Your task to perform on an android device: toggle location history Image 0: 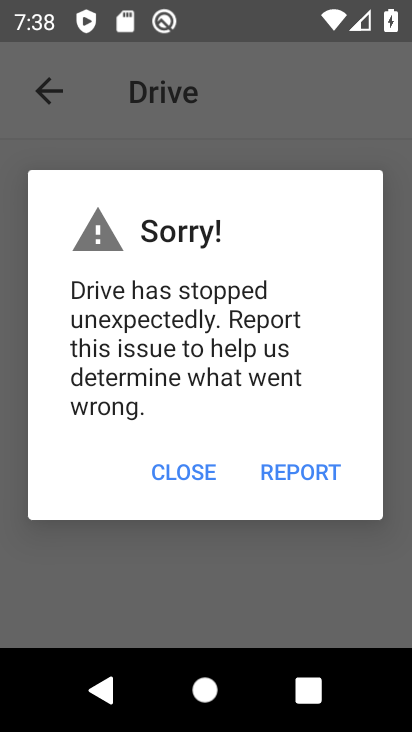
Step 0: press home button
Your task to perform on an android device: toggle location history Image 1: 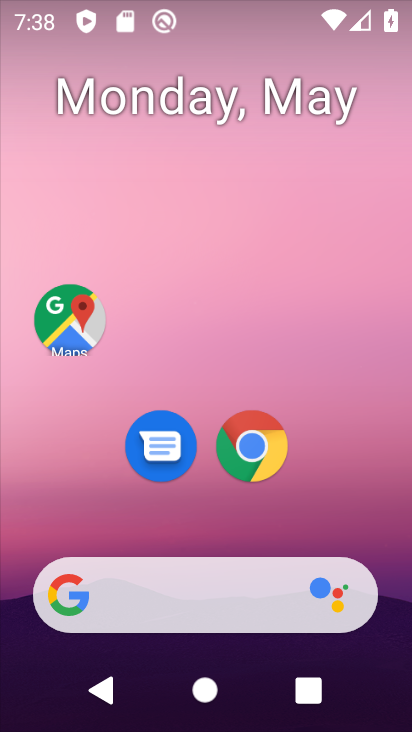
Step 1: click (63, 312)
Your task to perform on an android device: toggle location history Image 2: 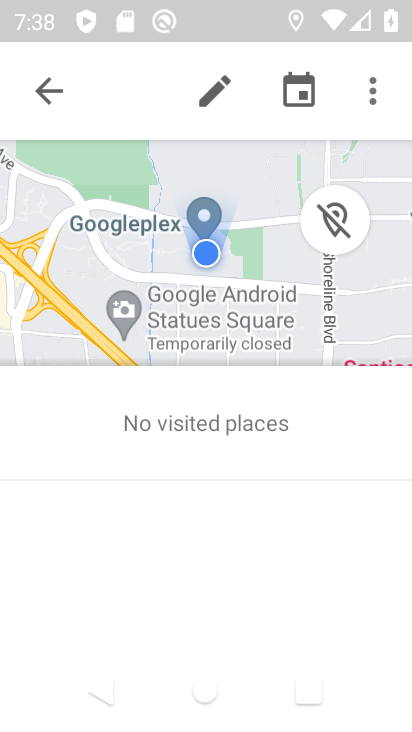
Step 2: click (370, 100)
Your task to perform on an android device: toggle location history Image 3: 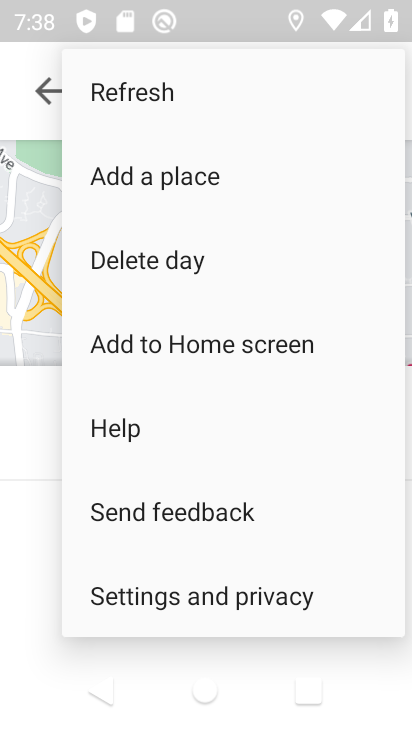
Step 3: click (162, 601)
Your task to perform on an android device: toggle location history Image 4: 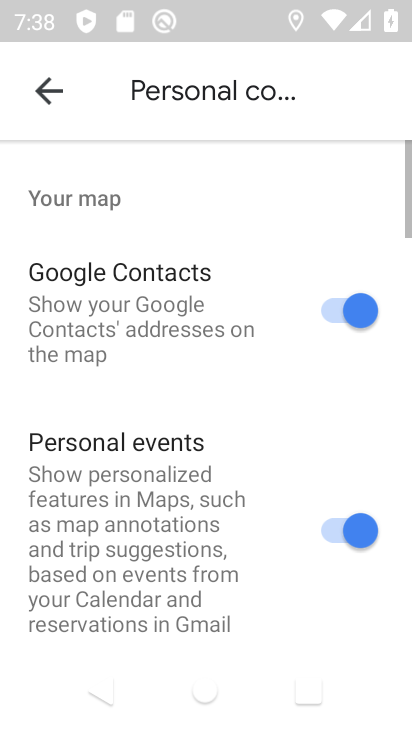
Step 4: drag from (162, 601) to (162, 97)
Your task to perform on an android device: toggle location history Image 5: 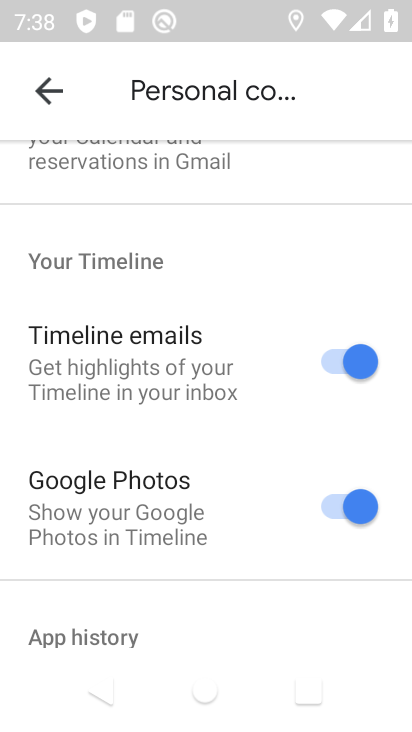
Step 5: drag from (133, 519) to (124, 118)
Your task to perform on an android device: toggle location history Image 6: 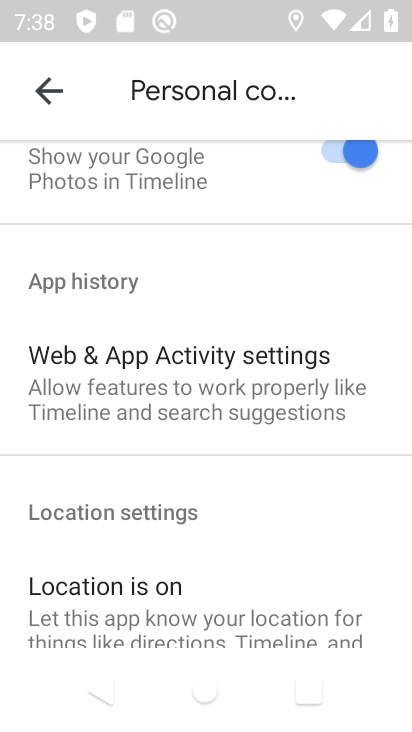
Step 6: drag from (138, 520) to (142, 91)
Your task to perform on an android device: toggle location history Image 7: 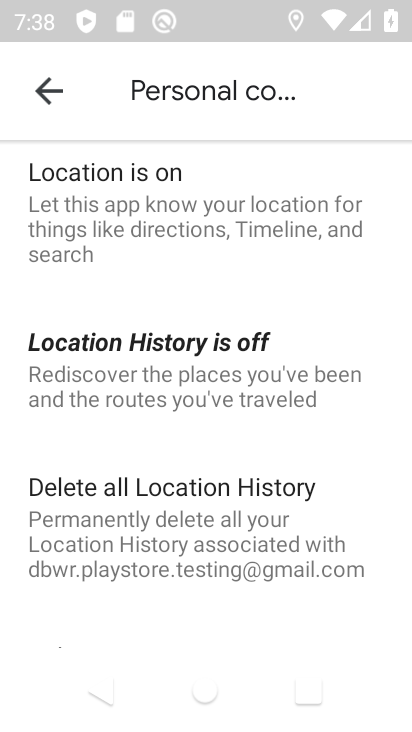
Step 7: click (148, 359)
Your task to perform on an android device: toggle location history Image 8: 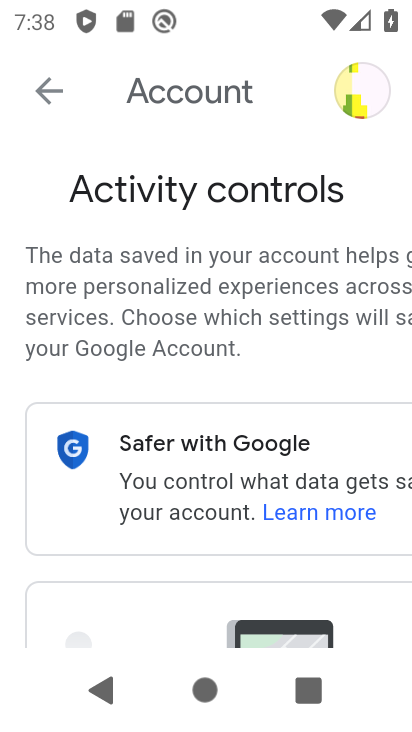
Step 8: drag from (191, 508) to (193, 119)
Your task to perform on an android device: toggle location history Image 9: 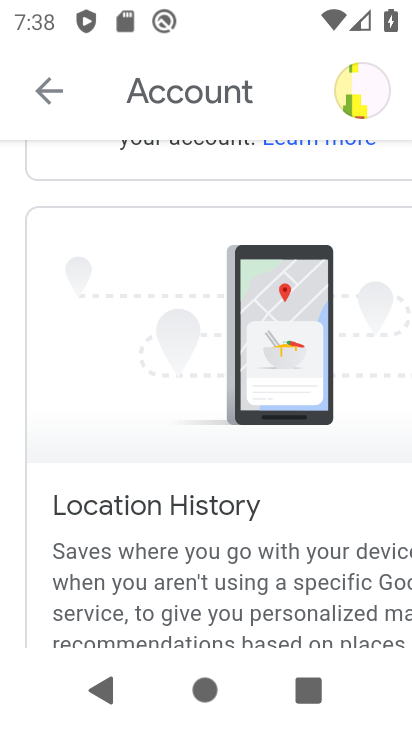
Step 9: drag from (166, 553) to (159, 147)
Your task to perform on an android device: toggle location history Image 10: 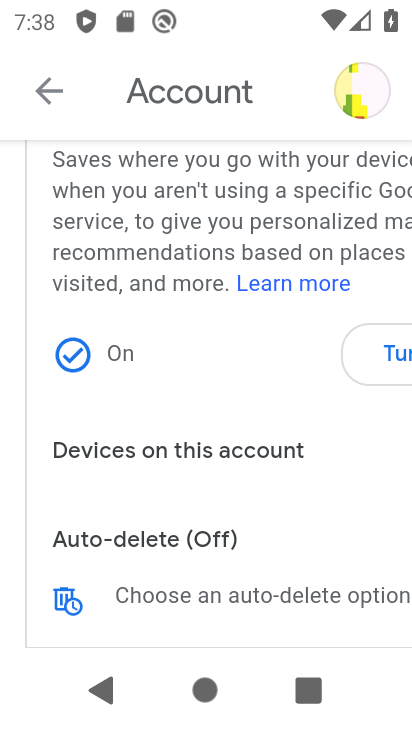
Step 10: click (400, 358)
Your task to perform on an android device: toggle location history Image 11: 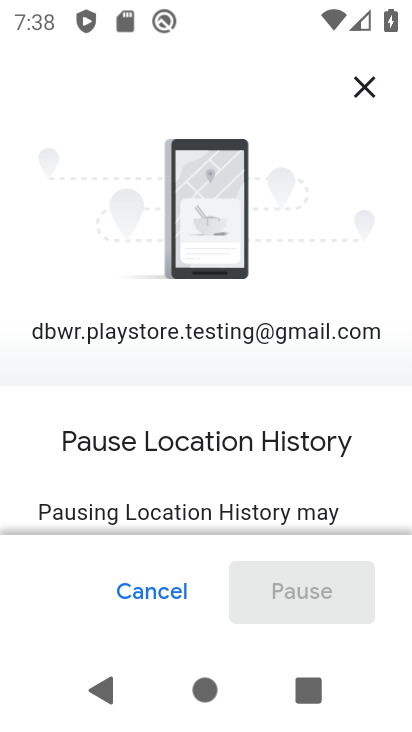
Step 11: drag from (188, 492) to (165, 40)
Your task to perform on an android device: toggle location history Image 12: 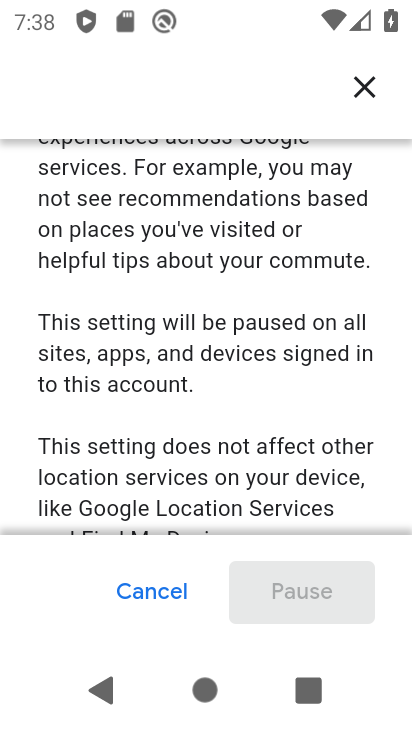
Step 12: drag from (196, 463) to (190, 64)
Your task to perform on an android device: toggle location history Image 13: 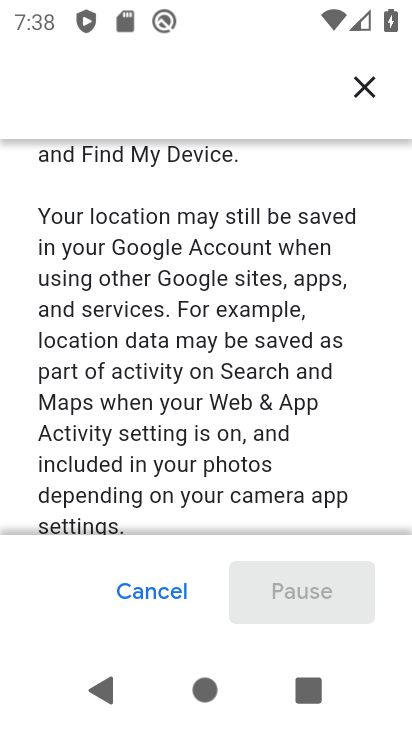
Step 13: drag from (181, 498) to (179, 95)
Your task to perform on an android device: toggle location history Image 14: 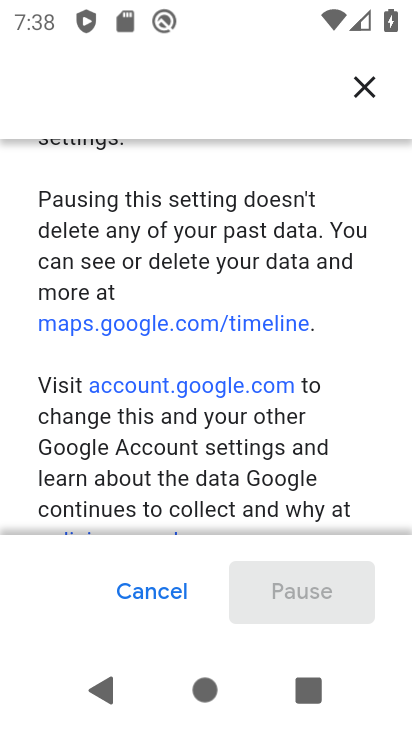
Step 14: drag from (182, 487) to (163, 82)
Your task to perform on an android device: toggle location history Image 15: 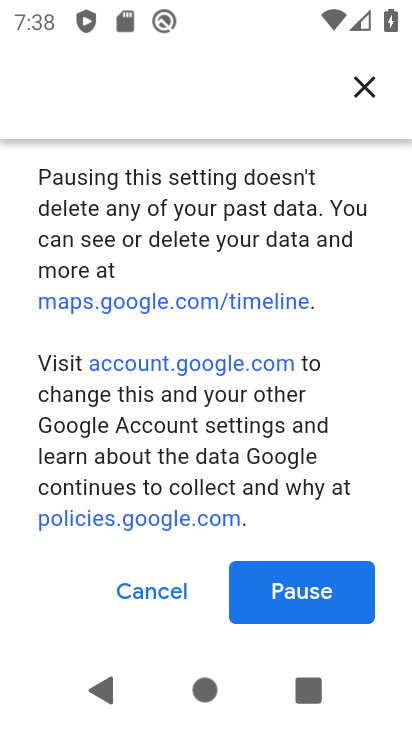
Step 15: click (300, 593)
Your task to perform on an android device: toggle location history Image 16: 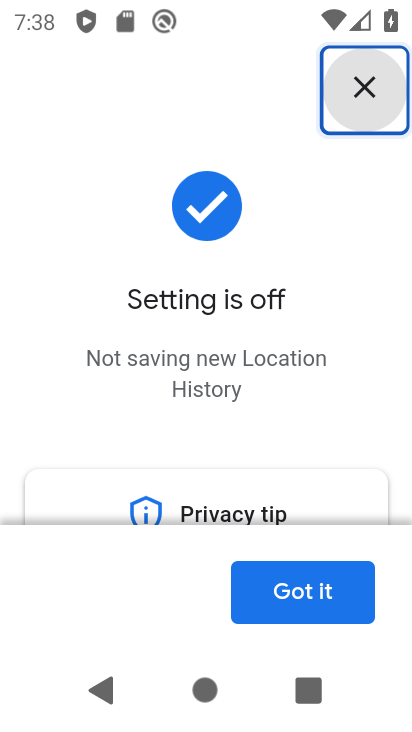
Step 16: click (300, 593)
Your task to perform on an android device: toggle location history Image 17: 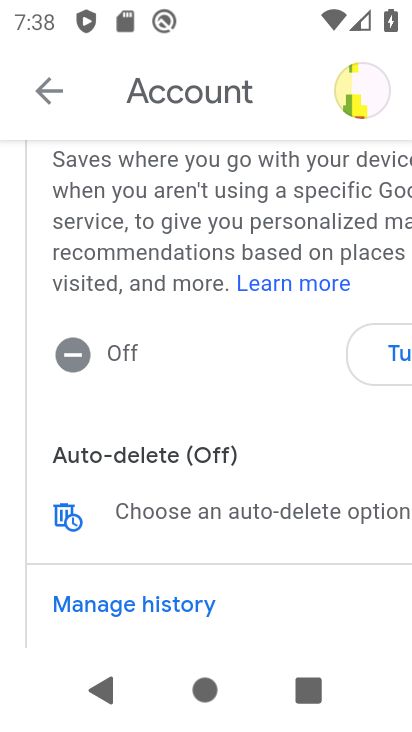
Step 17: task complete